Your task to perform on an android device: Open CNN.com Image 0: 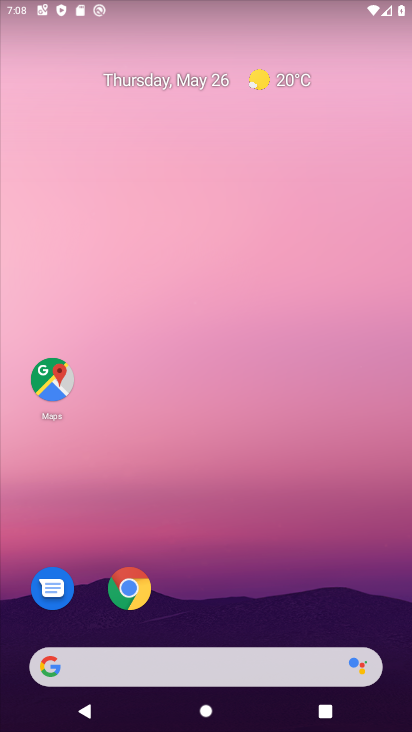
Step 0: drag from (391, 604) to (353, 182)
Your task to perform on an android device: Open CNN.com Image 1: 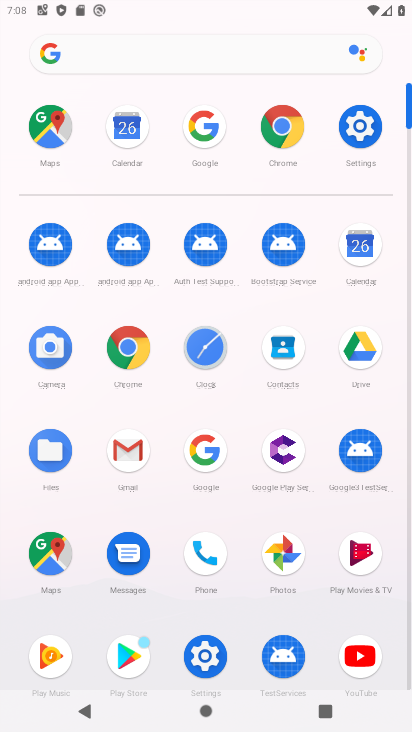
Step 1: click (202, 437)
Your task to perform on an android device: Open CNN.com Image 2: 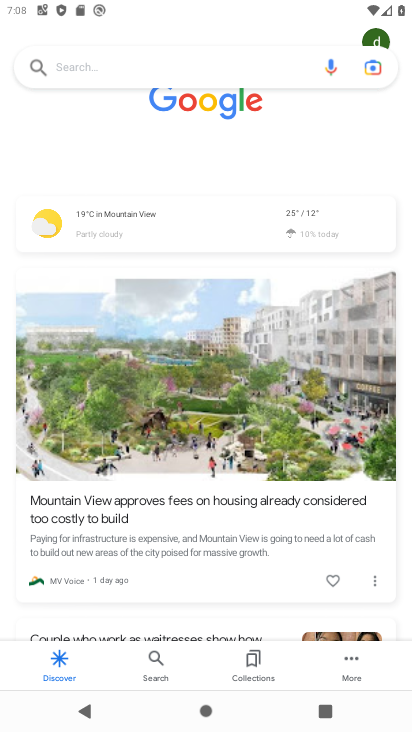
Step 2: click (142, 62)
Your task to perform on an android device: Open CNN.com Image 3: 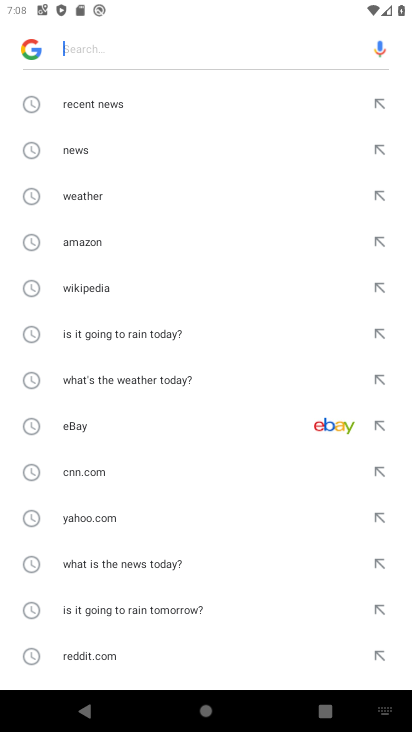
Step 3: click (108, 474)
Your task to perform on an android device: Open CNN.com Image 4: 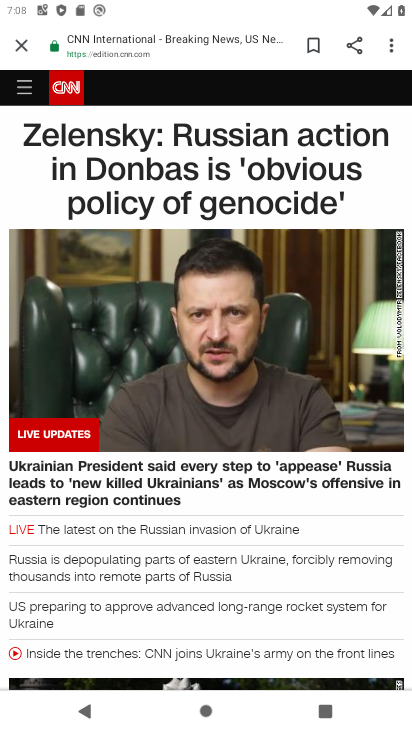
Step 4: task complete